Your task to perform on an android device: Open settings Image 0: 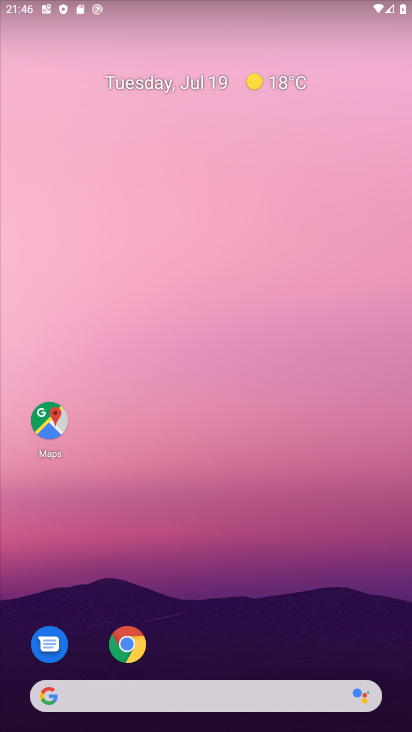
Step 0: drag from (231, 731) to (213, 159)
Your task to perform on an android device: Open settings Image 1: 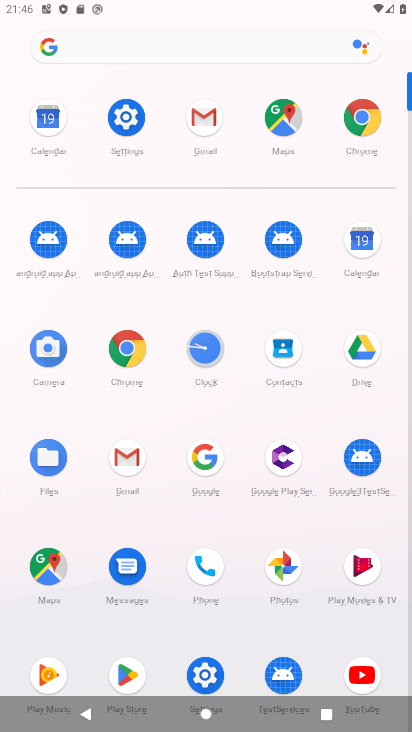
Step 1: click (124, 116)
Your task to perform on an android device: Open settings Image 2: 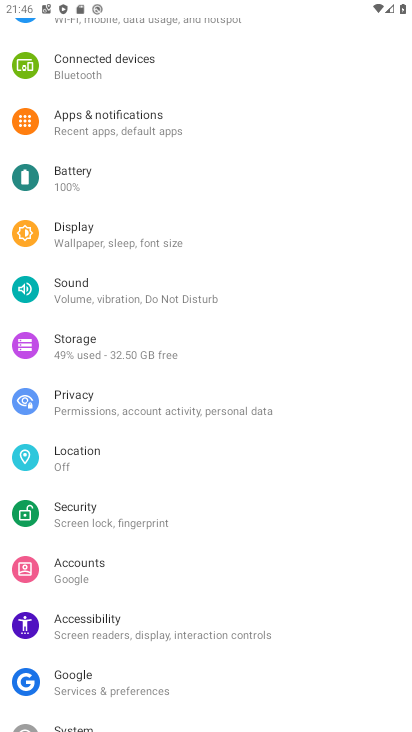
Step 2: task complete